Your task to perform on an android device: Search for "logitech g910" on bestbuy.com, select the first entry, add it to the cart, then select checkout. Image 0: 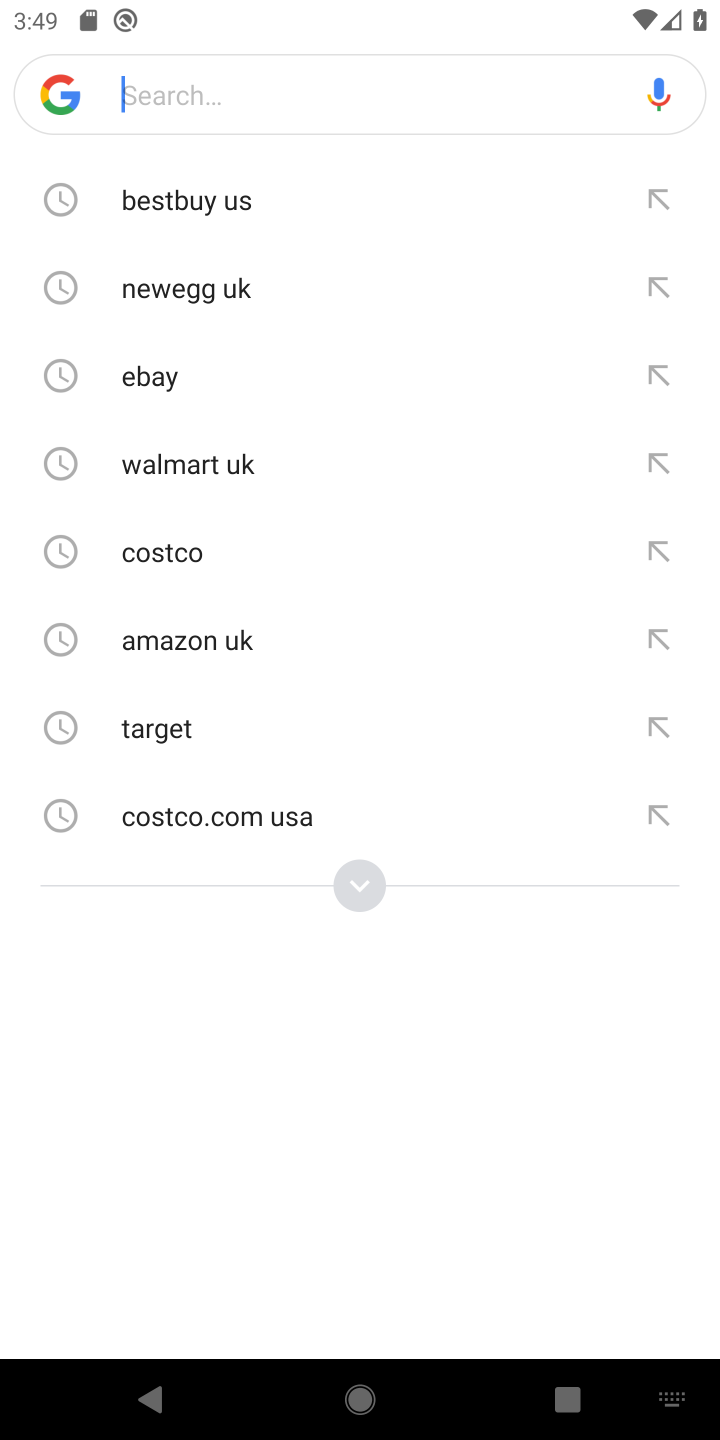
Step 0: type "bestbuy"
Your task to perform on an android device: Search for "logitech g910" on bestbuy.com, select the first entry, add it to the cart, then select checkout. Image 1: 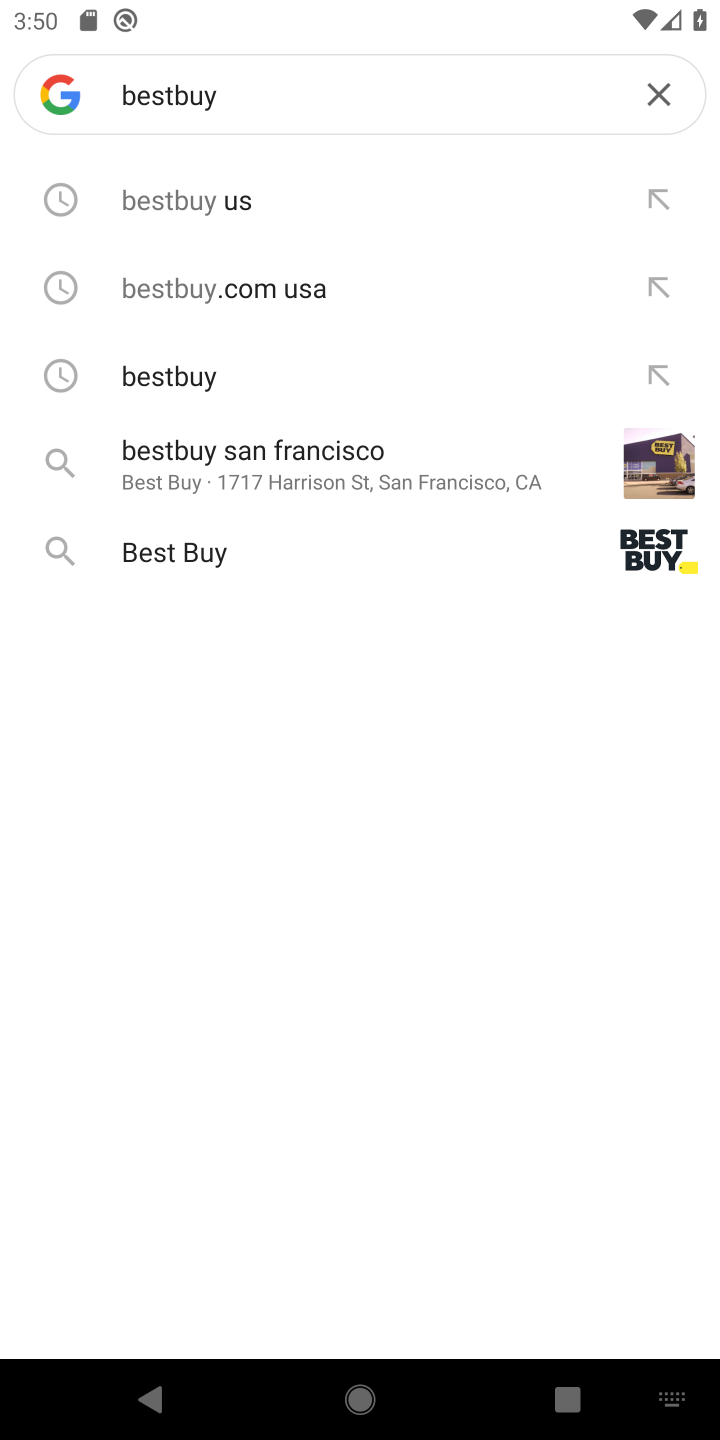
Step 1: click (211, 228)
Your task to perform on an android device: Search for "logitech g910" on bestbuy.com, select the first entry, add it to the cart, then select checkout. Image 2: 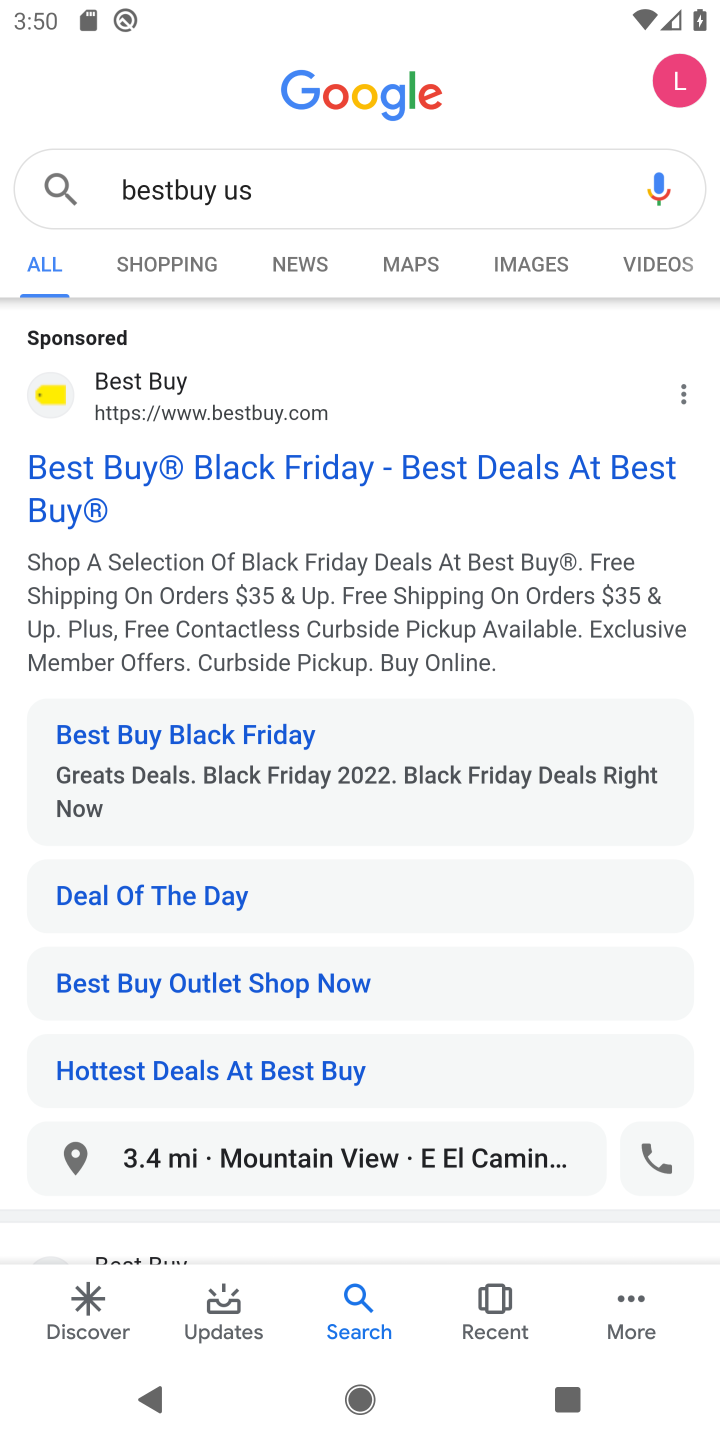
Step 2: click (500, 510)
Your task to perform on an android device: Search for "logitech g910" on bestbuy.com, select the first entry, add it to the cart, then select checkout. Image 3: 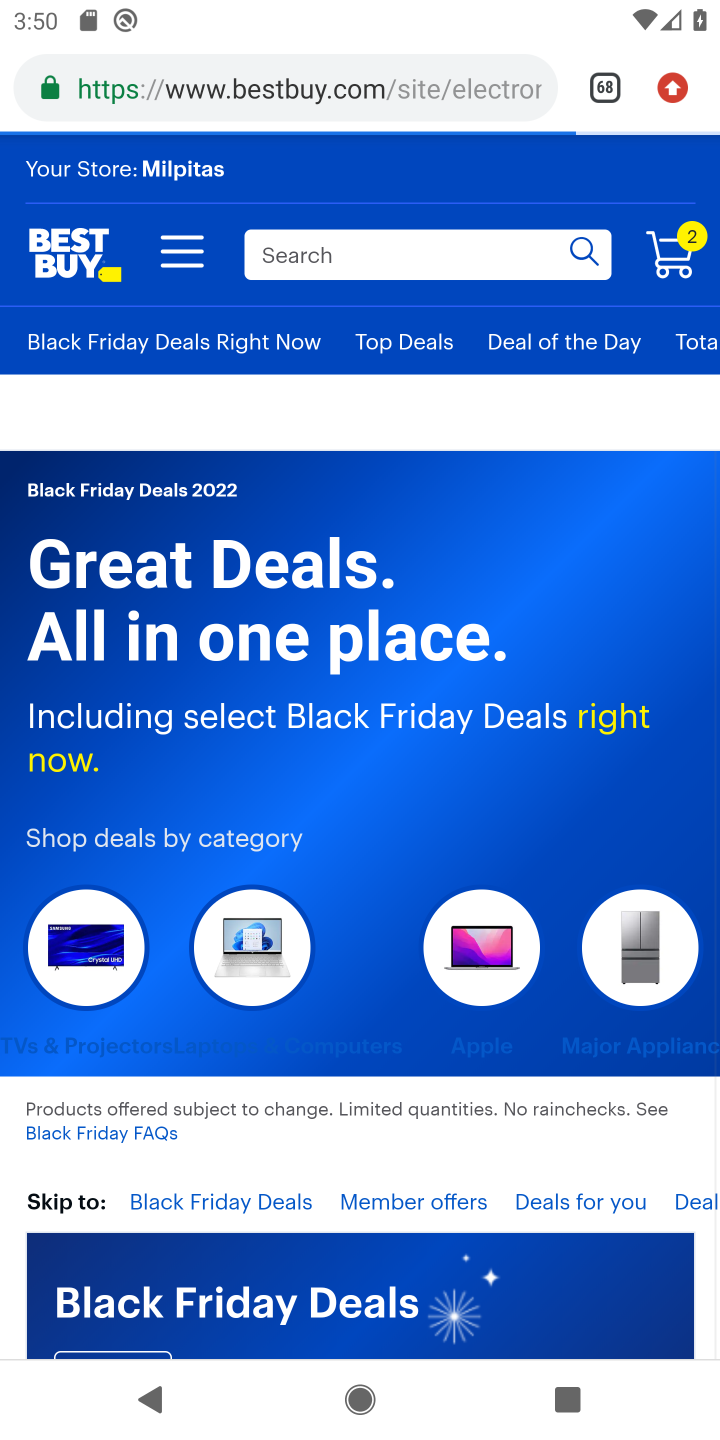
Step 3: click (418, 277)
Your task to perform on an android device: Search for "logitech g910" on bestbuy.com, select the first entry, add it to the cart, then select checkout. Image 4: 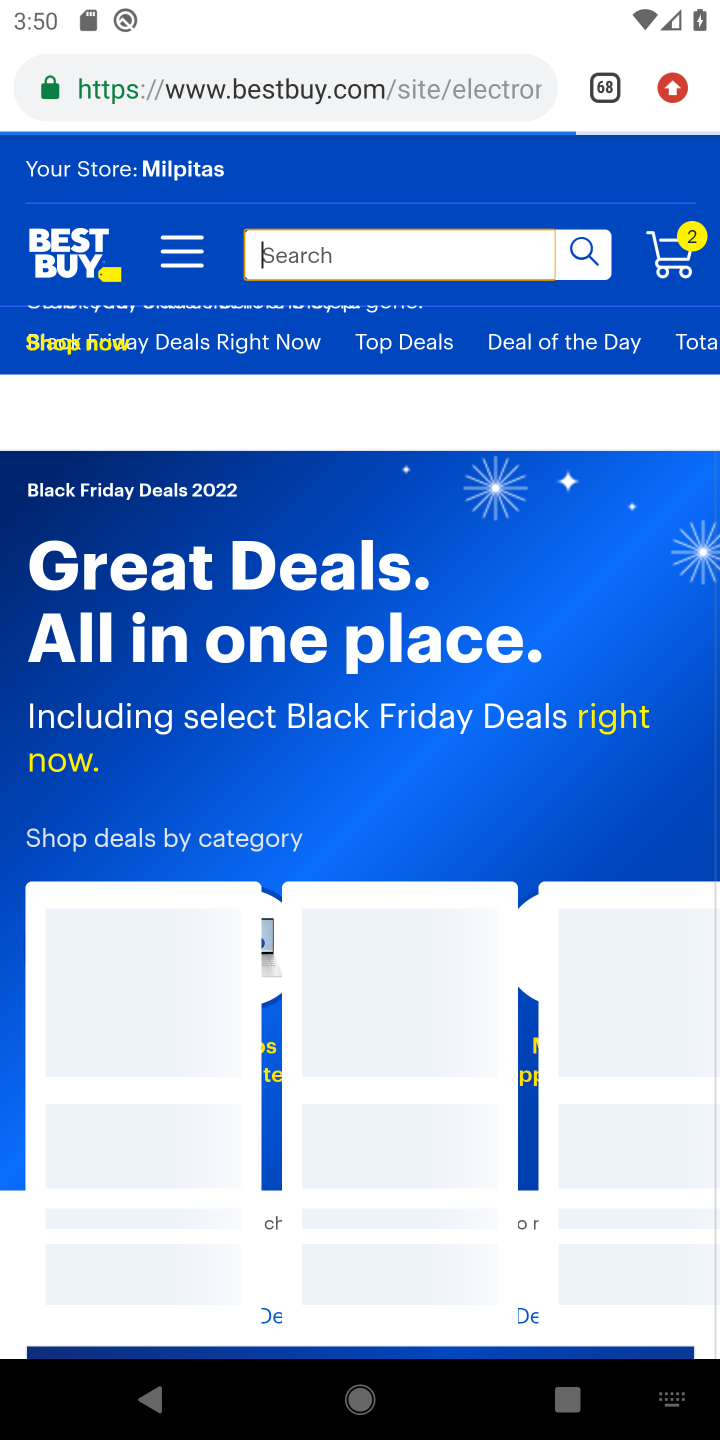
Step 4: click (417, 256)
Your task to perform on an android device: Search for "logitech g910" on bestbuy.com, select the first entry, add it to the cart, then select checkout. Image 5: 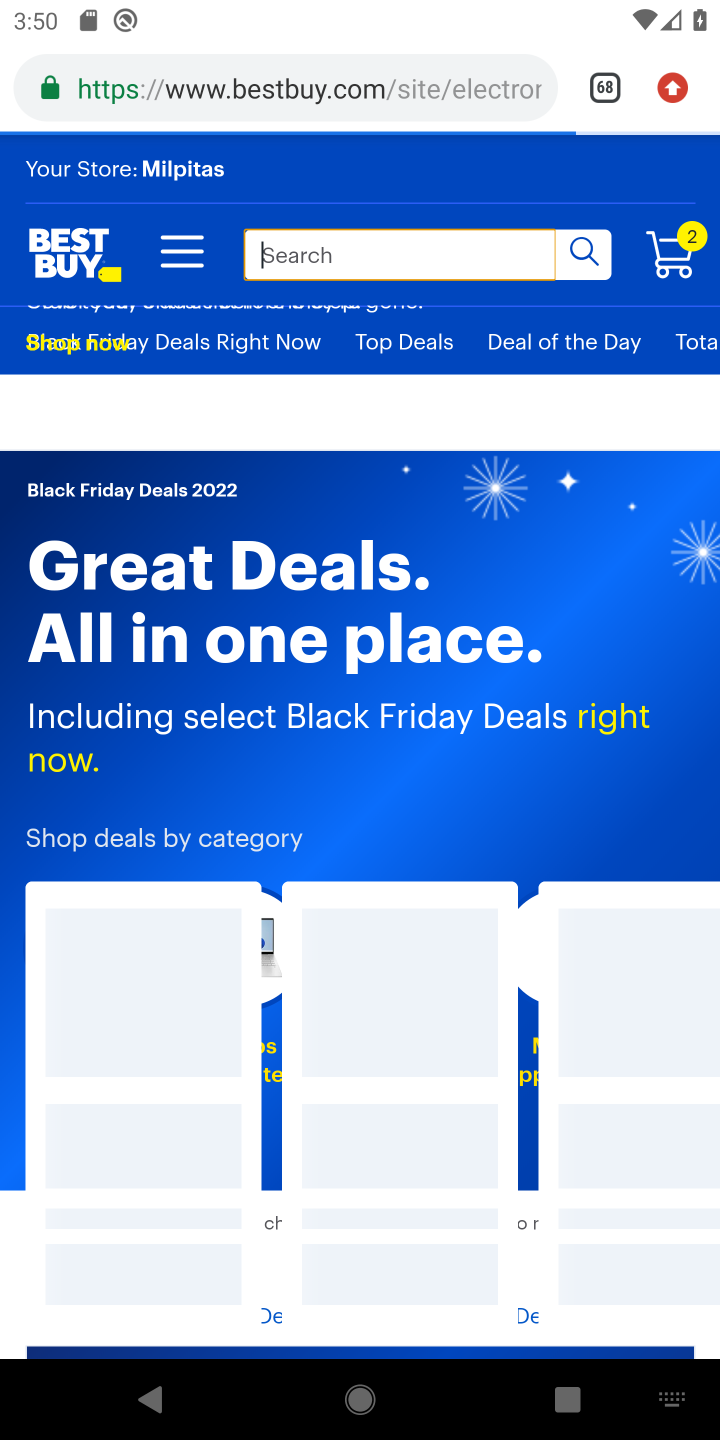
Step 5: type "logitech g910"
Your task to perform on an android device: Search for "logitech g910" on bestbuy.com, select the first entry, add it to the cart, then select checkout. Image 6: 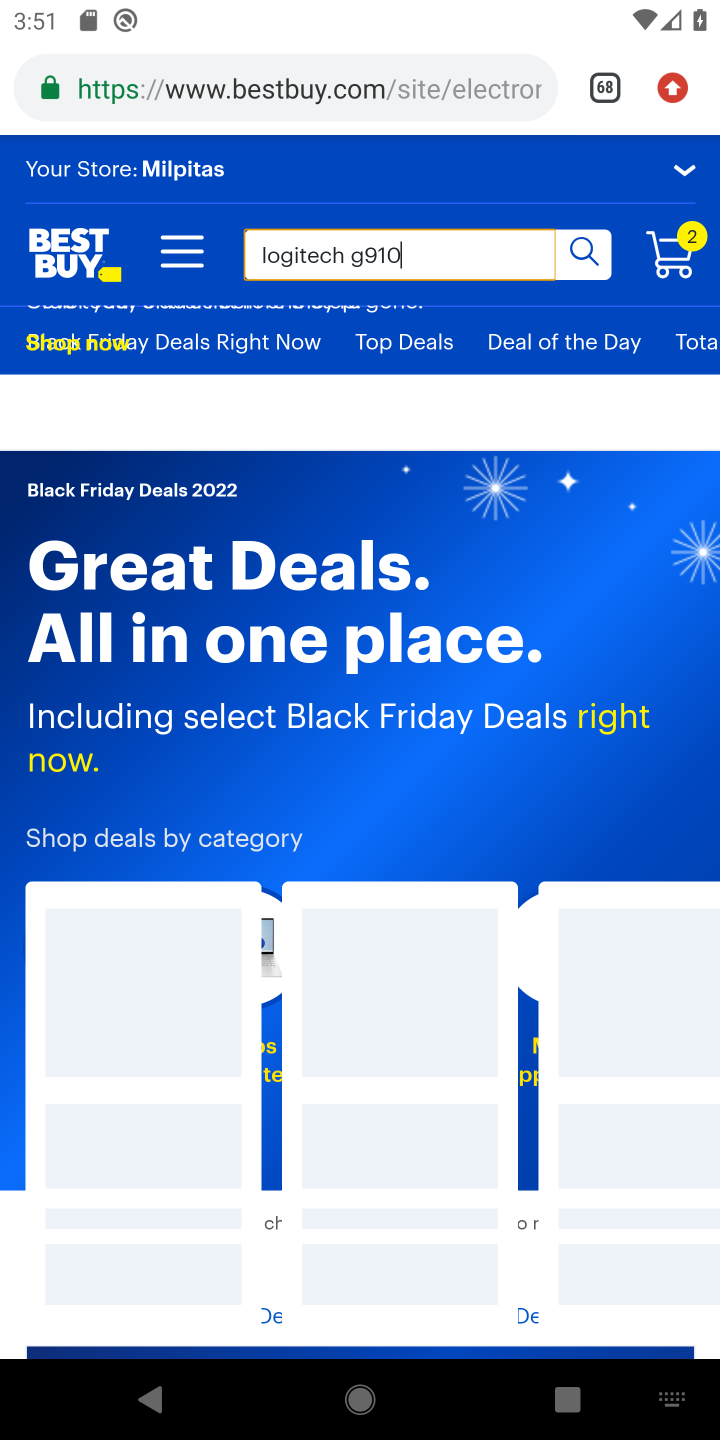
Step 6: click (578, 272)
Your task to perform on an android device: Search for "logitech g910" on bestbuy.com, select the first entry, add it to the cart, then select checkout. Image 7: 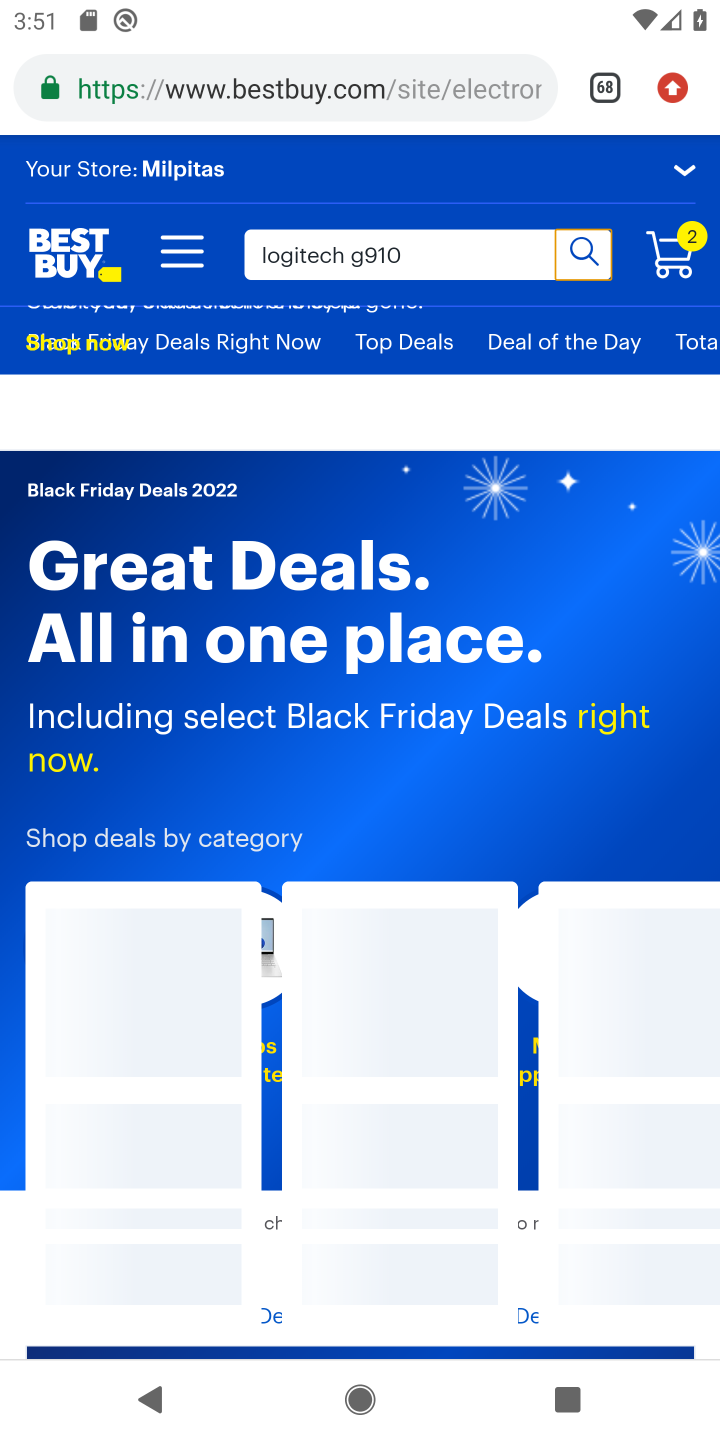
Step 7: click (564, 262)
Your task to perform on an android device: Search for "logitech g910" on bestbuy.com, select the first entry, add it to the cart, then select checkout. Image 8: 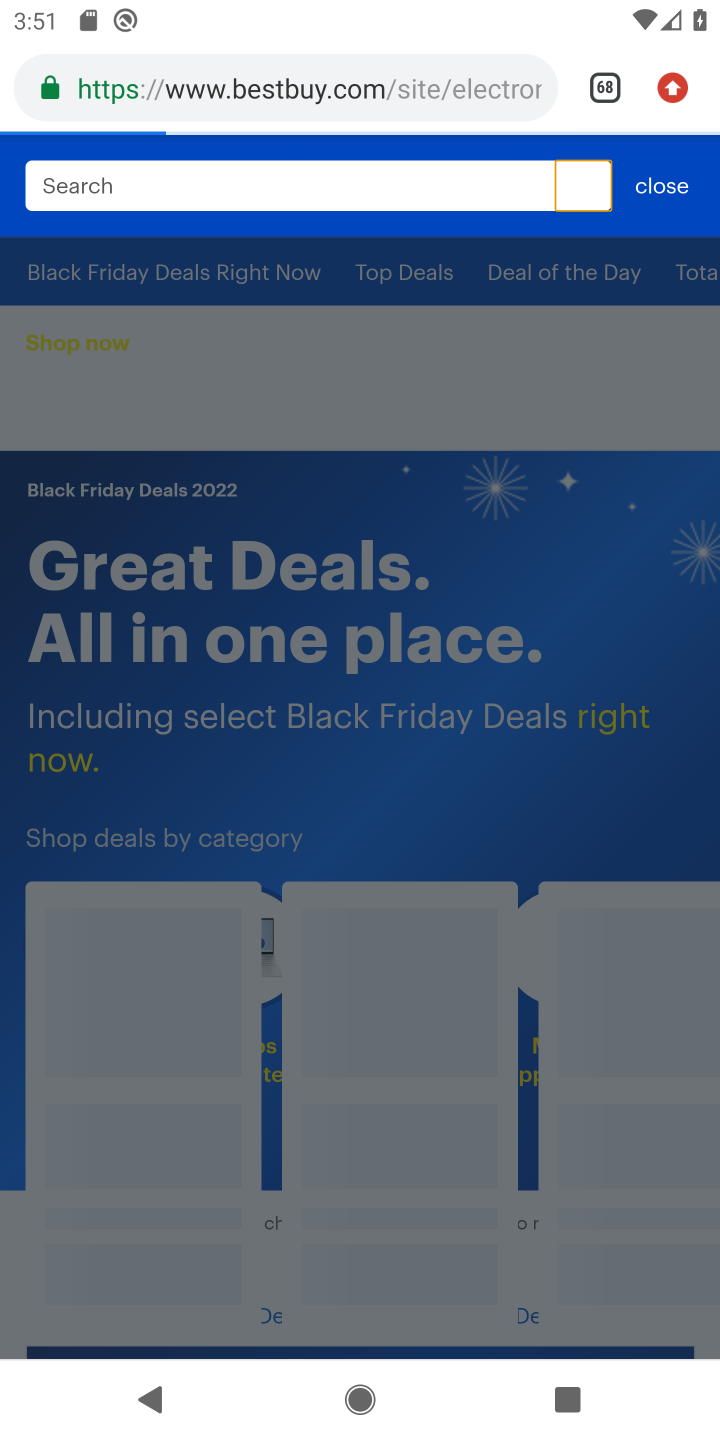
Step 8: task complete